Your task to perform on an android device: Open Google Chrome and open the bookmarks view Image 0: 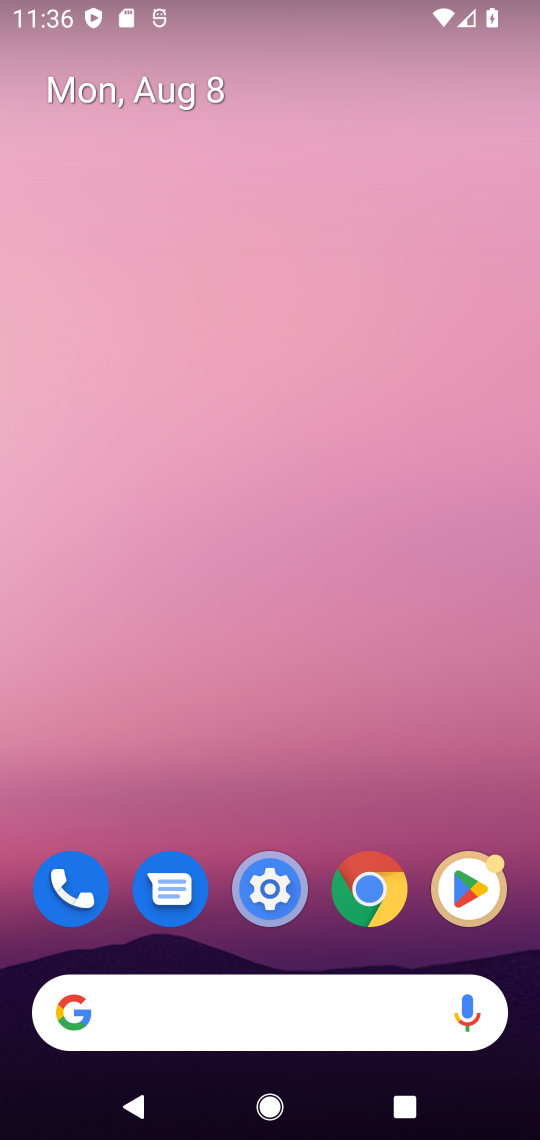
Step 0: click (361, 888)
Your task to perform on an android device: Open Google Chrome and open the bookmarks view Image 1: 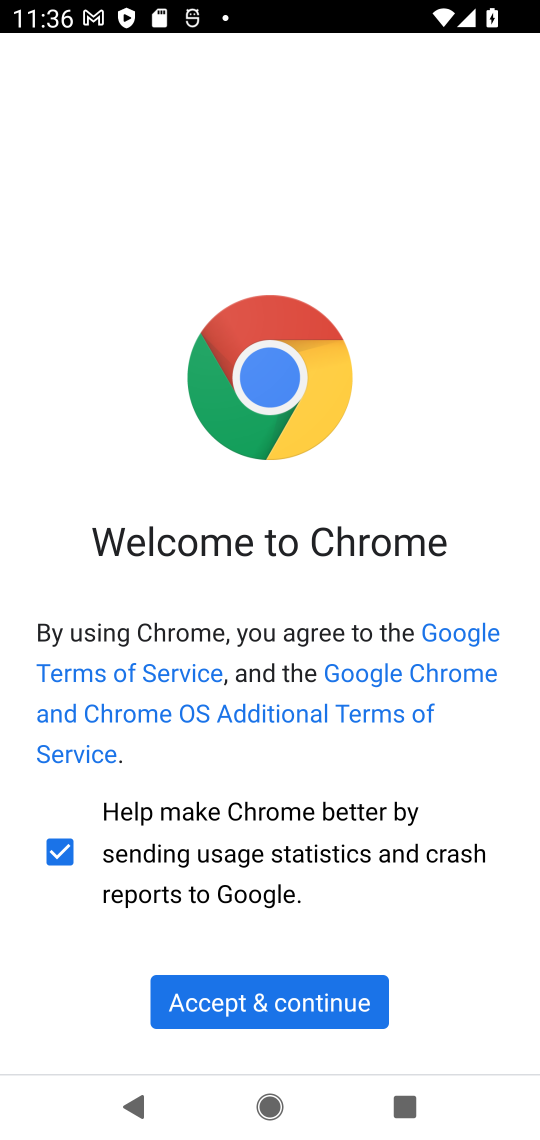
Step 1: click (321, 1003)
Your task to perform on an android device: Open Google Chrome and open the bookmarks view Image 2: 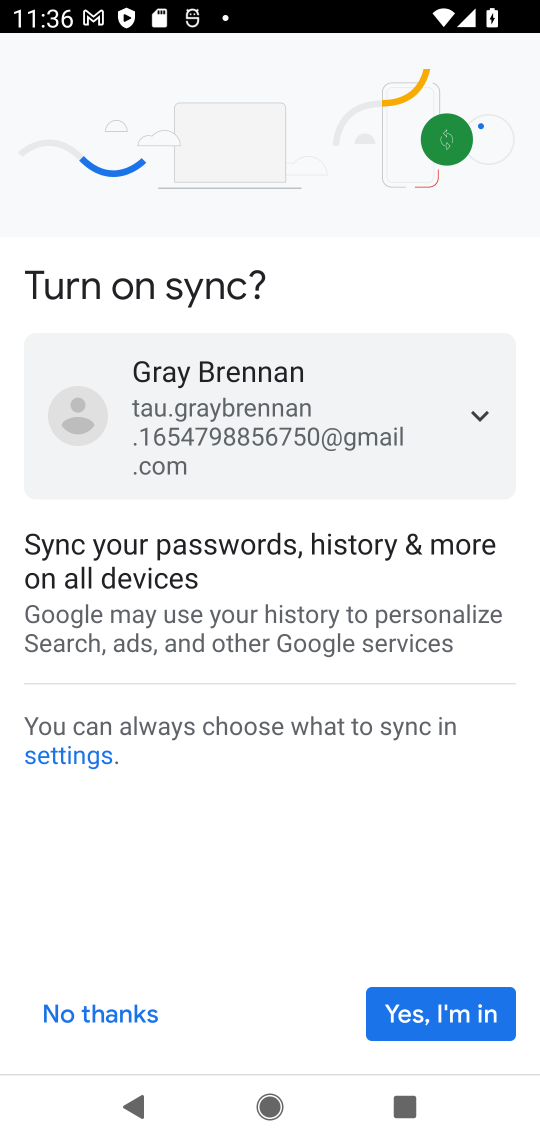
Step 2: click (430, 1016)
Your task to perform on an android device: Open Google Chrome and open the bookmarks view Image 3: 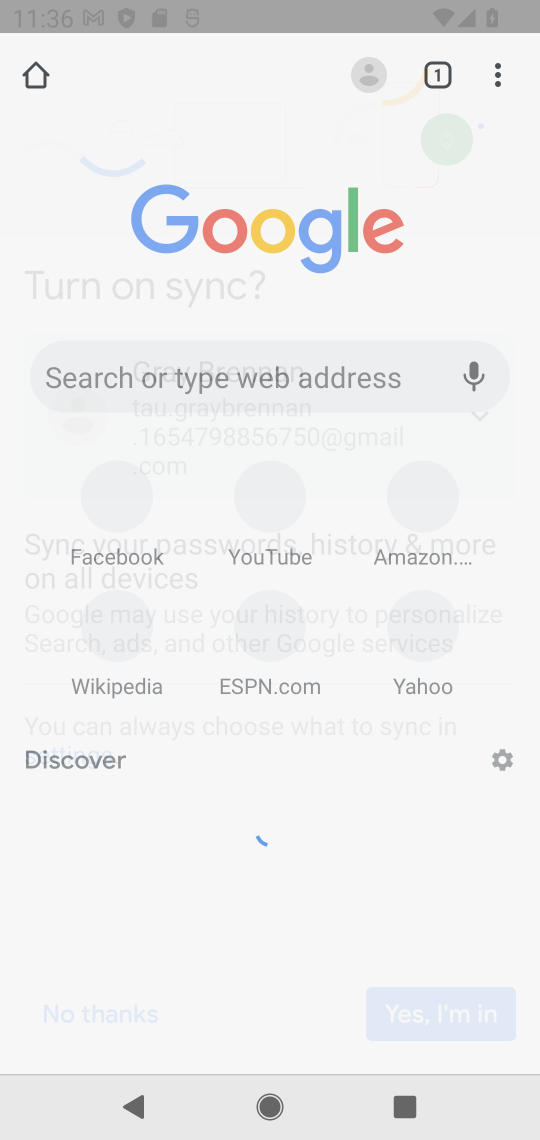
Step 3: click (470, 1014)
Your task to perform on an android device: Open Google Chrome and open the bookmarks view Image 4: 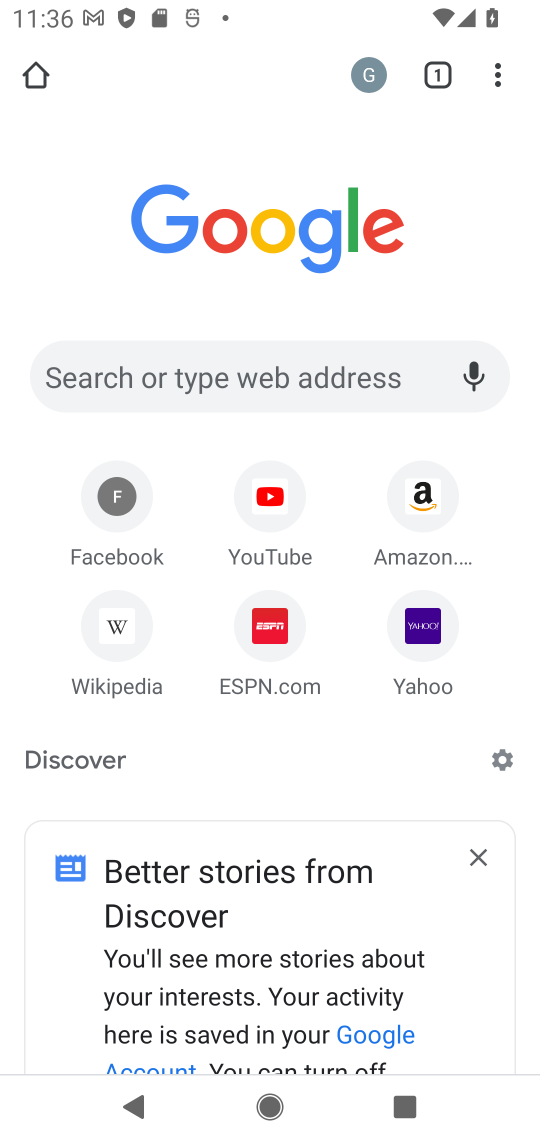
Step 4: click (503, 76)
Your task to perform on an android device: Open Google Chrome and open the bookmarks view Image 5: 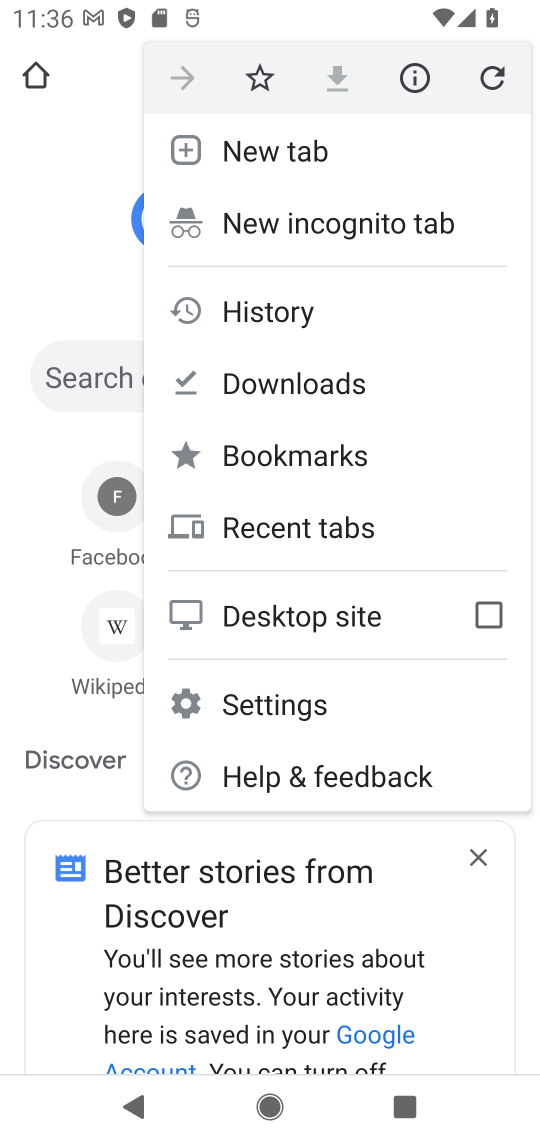
Step 5: click (311, 460)
Your task to perform on an android device: Open Google Chrome and open the bookmarks view Image 6: 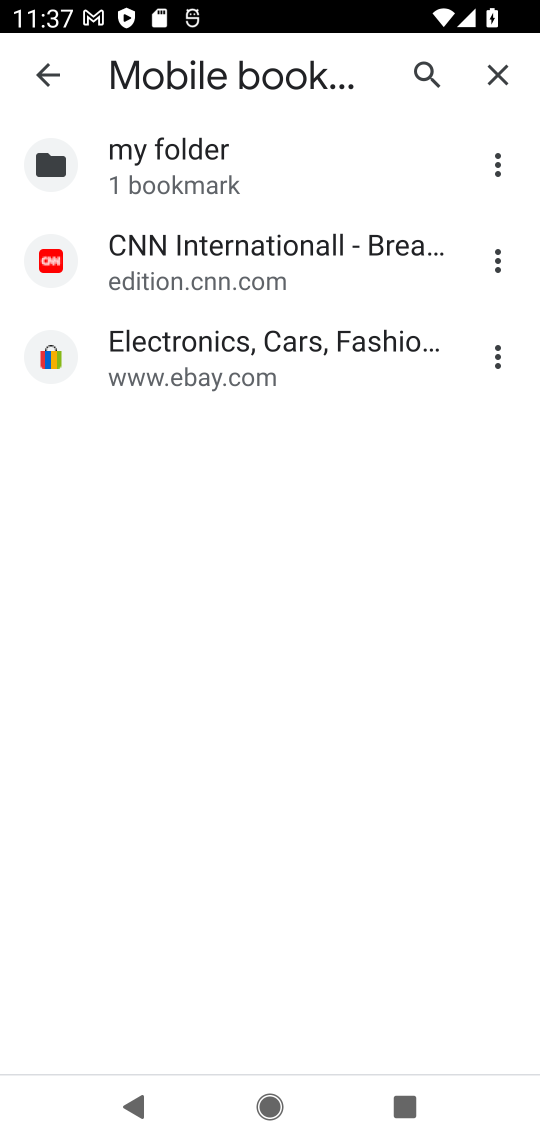
Step 6: task complete